Your task to perform on an android device: turn on priority inbox in the gmail app Image 0: 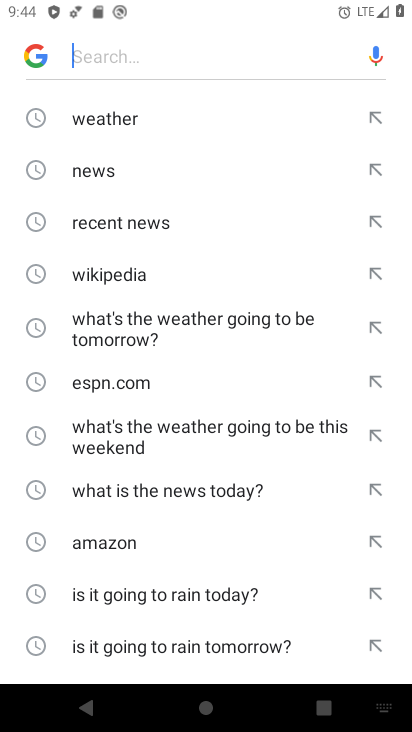
Step 0: press back button
Your task to perform on an android device: turn on priority inbox in the gmail app Image 1: 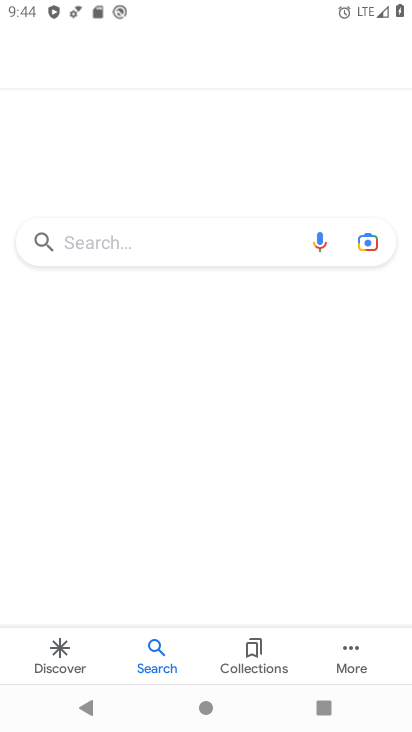
Step 1: press back button
Your task to perform on an android device: turn on priority inbox in the gmail app Image 2: 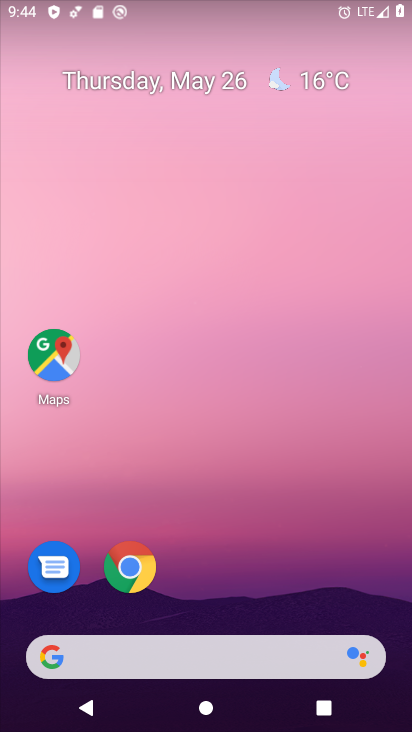
Step 2: drag from (391, 656) to (355, 282)
Your task to perform on an android device: turn on priority inbox in the gmail app Image 3: 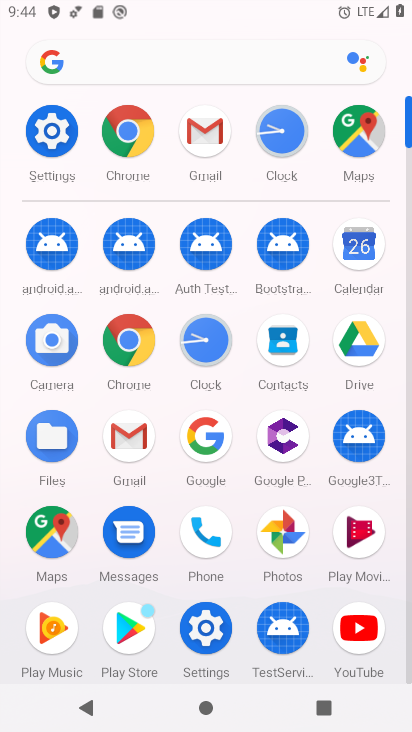
Step 3: click (186, 141)
Your task to perform on an android device: turn on priority inbox in the gmail app Image 4: 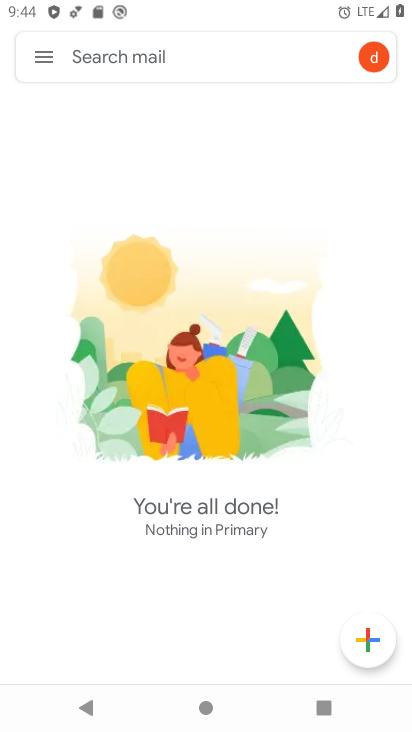
Step 4: click (45, 53)
Your task to perform on an android device: turn on priority inbox in the gmail app Image 5: 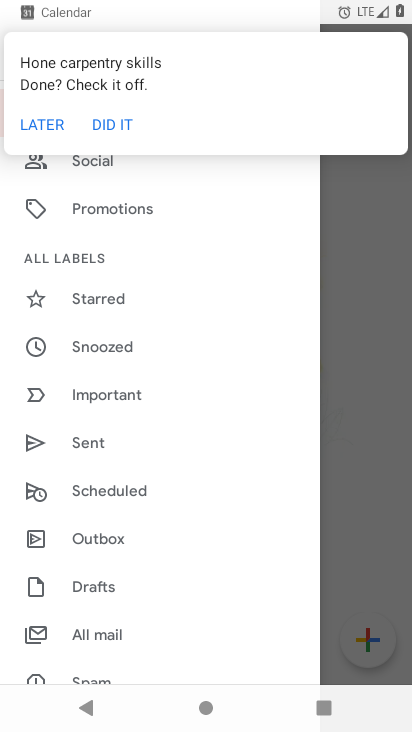
Step 5: drag from (204, 658) to (191, 204)
Your task to perform on an android device: turn on priority inbox in the gmail app Image 6: 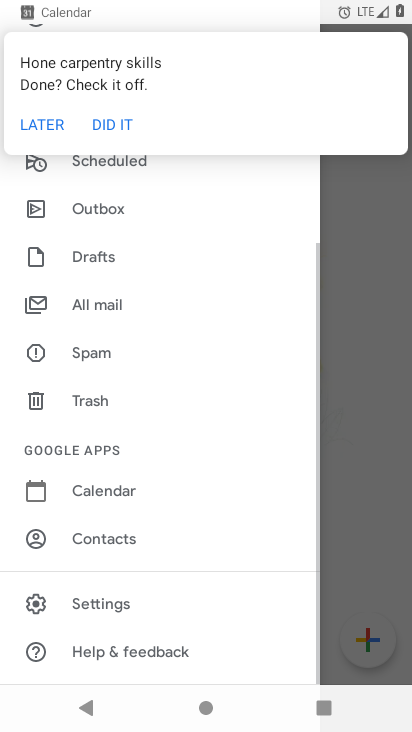
Step 6: click (106, 605)
Your task to perform on an android device: turn on priority inbox in the gmail app Image 7: 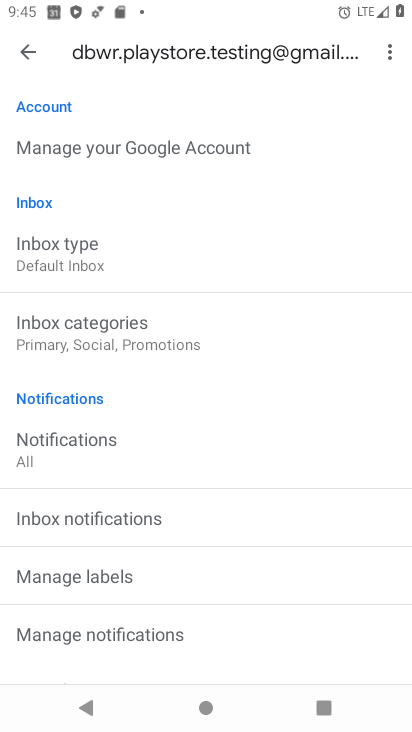
Step 7: click (52, 253)
Your task to perform on an android device: turn on priority inbox in the gmail app Image 8: 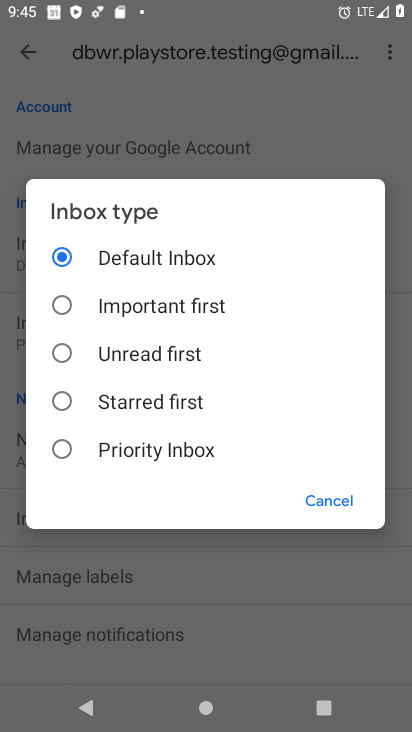
Step 8: click (55, 450)
Your task to perform on an android device: turn on priority inbox in the gmail app Image 9: 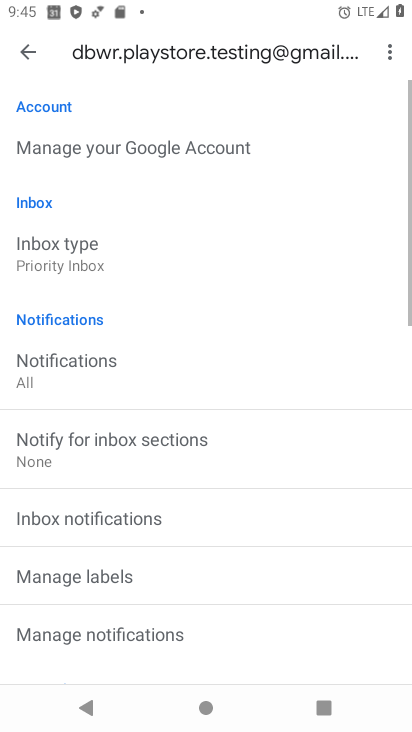
Step 9: task complete